Your task to perform on an android device: Open location settings Image 0: 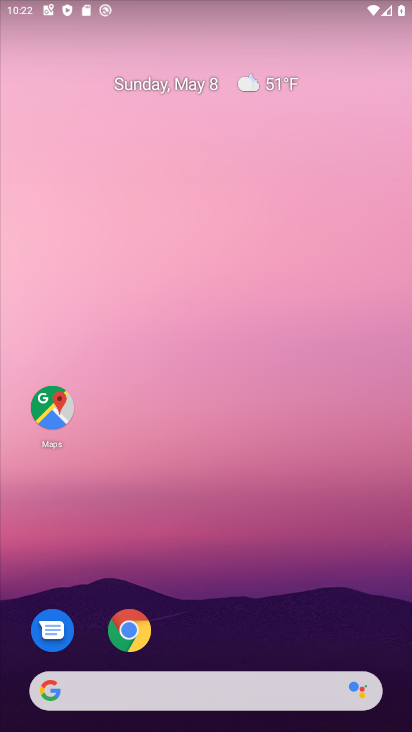
Step 0: drag from (378, 630) to (147, 51)
Your task to perform on an android device: Open location settings Image 1: 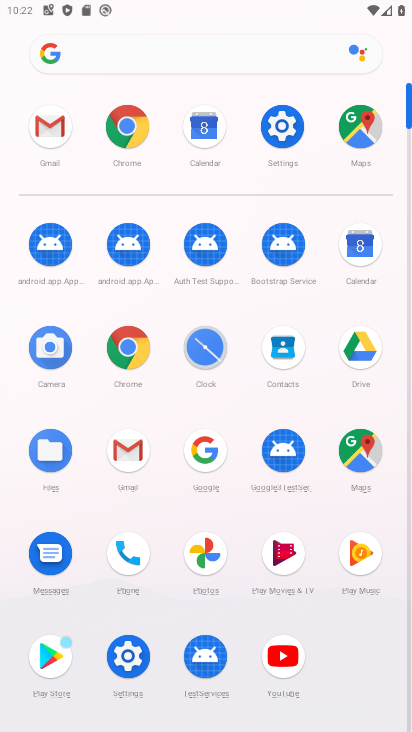
Step 1: click (282, 133)
Your task to perform on an android device: Open location settings Image 2: 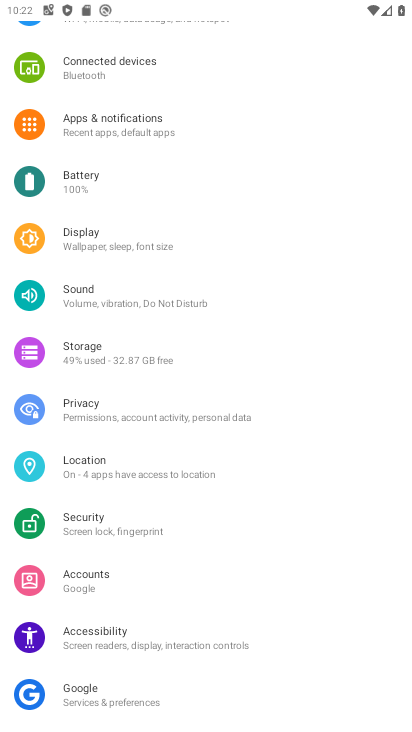
Step 2: click (87, 459)
Your task to perform on an android device: Open location settings Image 3: 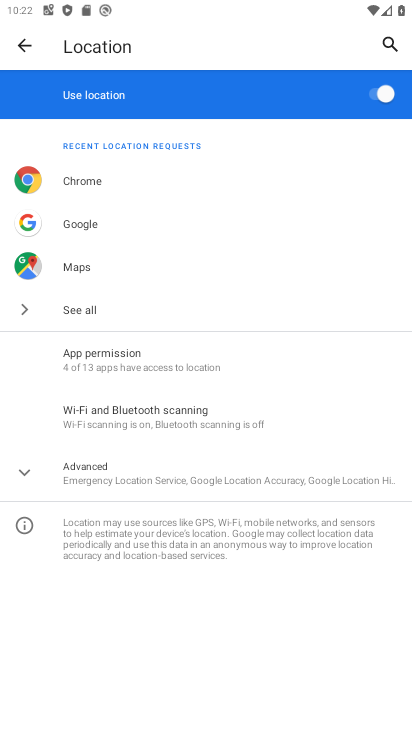
Step 3: task complete